Your task to perform on an android device: turn on improve location accuracy Image 0: 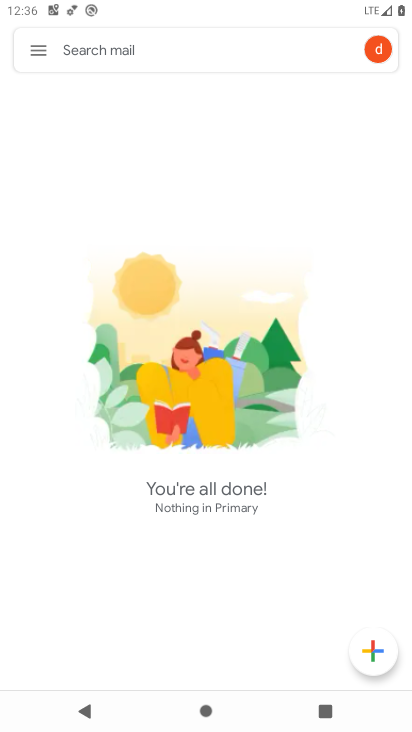
Step 0: click (255, 581)
Your task to perform on an android device: turn on improve location accuracy Image 1: 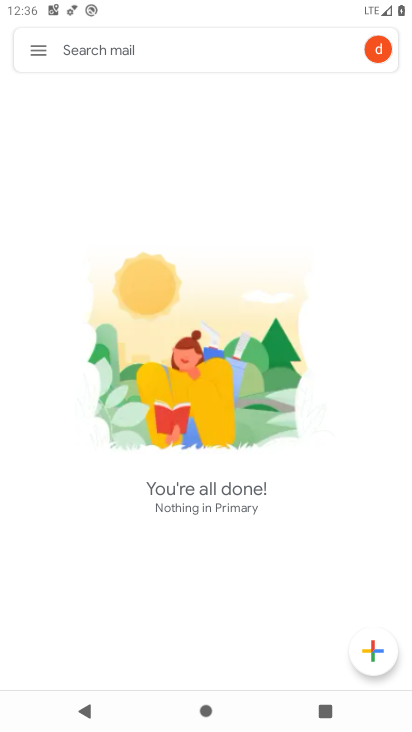
Step 1: drag from (191, 600) to (246, 426)
Your task to perform on an android device: turn on improve location accuracy Image 2: 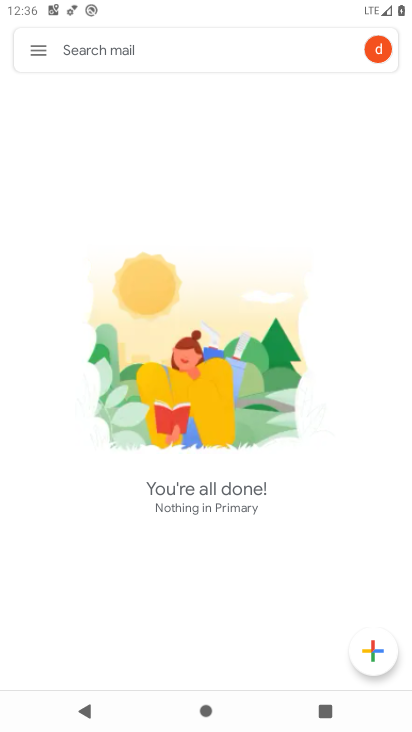
Step 2: press home button
Your task to perform on an android device: turn on improve location accuracy Image 3: 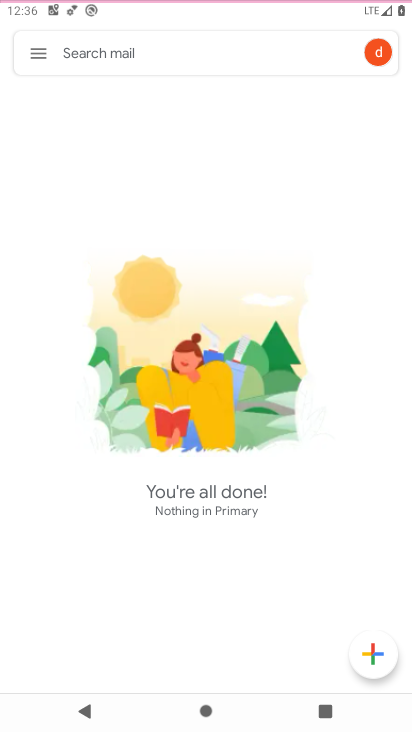
Step 3: drag from (317, 567) to (289, 107)
Your task to perform on an android device: turn on improve location accuracy Image 4: 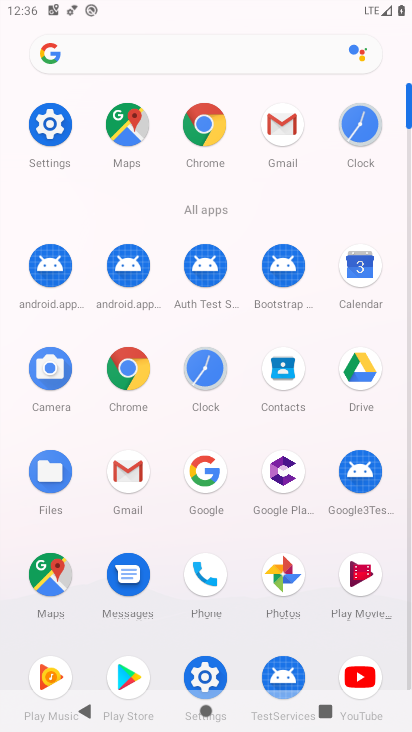
Step 4: click (65, 106)
Your task to perform on an android device: turn on improve location accuracy Image 5: 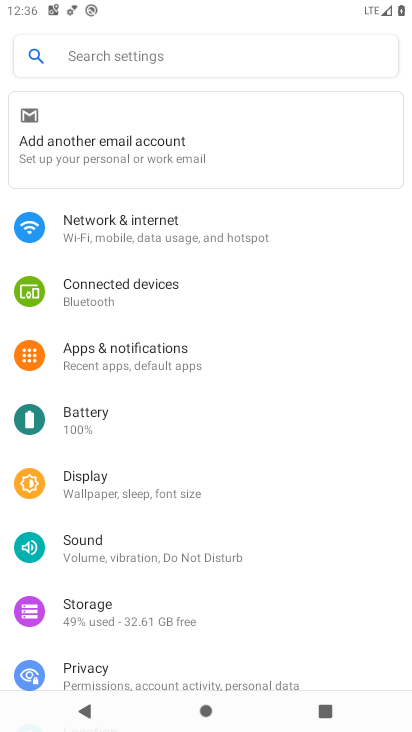
Step 5: drag from (217, 594) to (248, 143)
Your task to perform on an android device: turn on improve location accuracy Image 6: 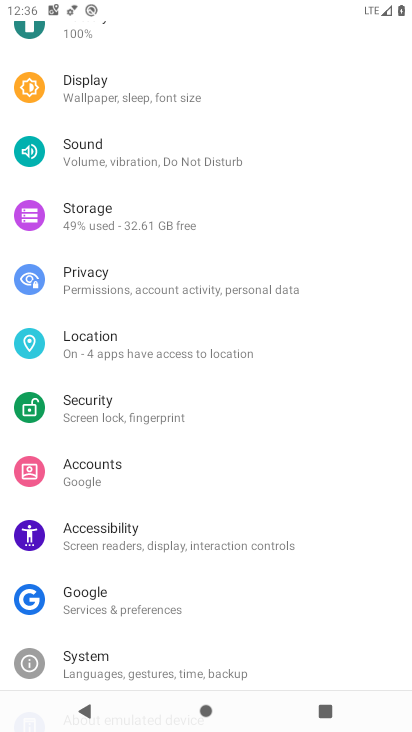
Step 6: click (168, 343)
Your task to perform on an android device: turn on improve location accuracy Image 7: 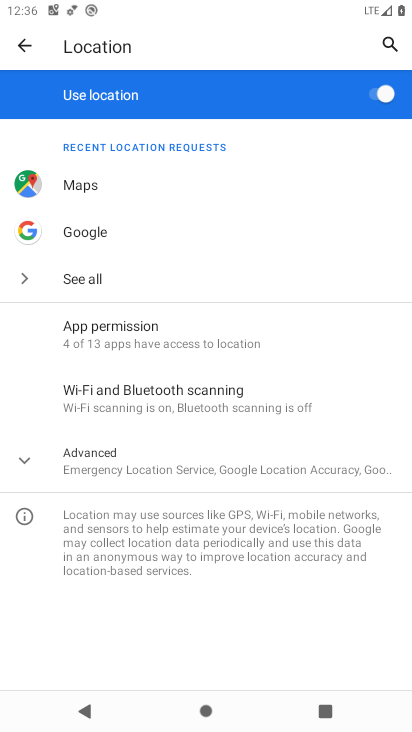
Step 7: click (111, 468)
Your task to perform on an android device: turn on improve location accuracy Image 8: 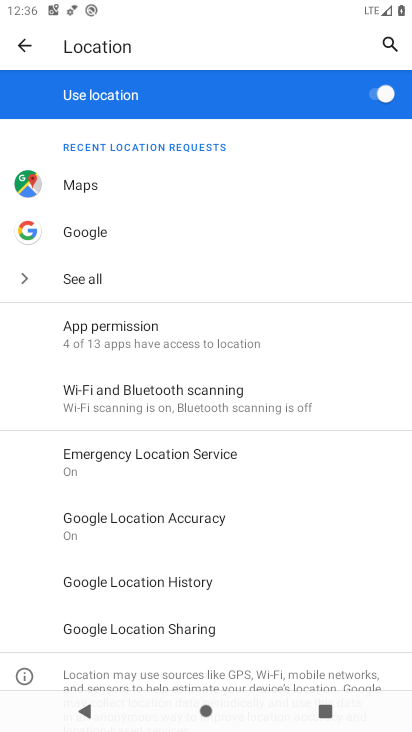
Step 8: drag from (195, 580) to (195, 316)
Your task to perform on an android device: turn on improve location accuracy Image 9: 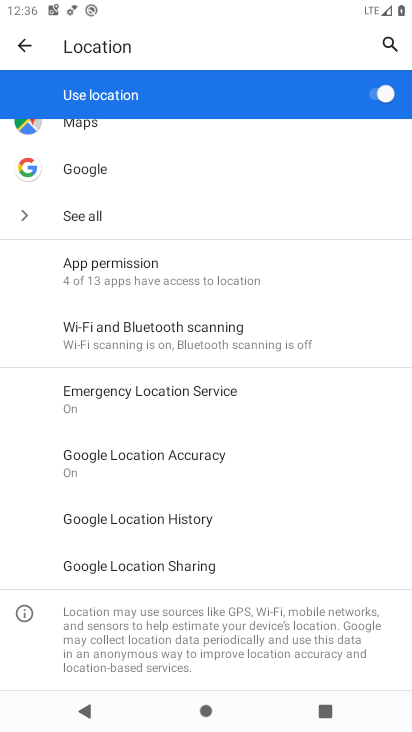
Step 9: click (199, 452)
Your task to perform on an android device: turn on improve location accuracy Image 10: 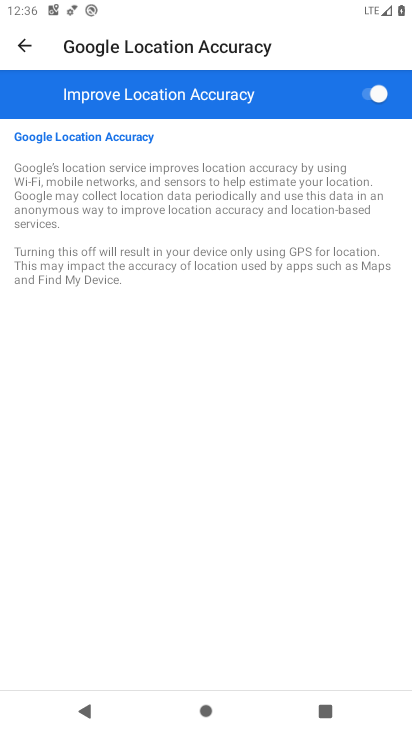
Step 10: task complete